Your task to perform on an android device: turn off priority inbox in the gmail app Image 0: 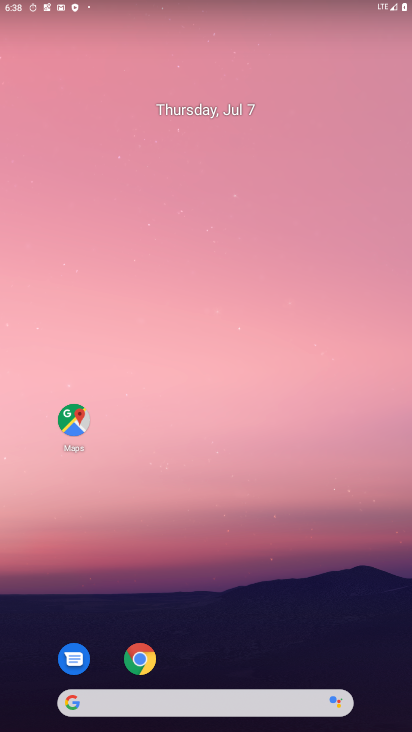
Step 0: drag from (367, 675) to (272, 5)
Your task to perform on an android device: turn off priority inbox in the gmail app Image 1: 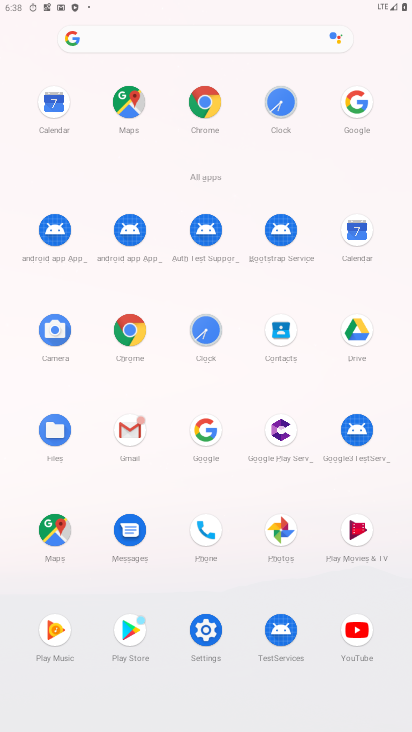
Step 1: click (120, 434)
Your task to perform on an android device: turn off priority inbox in the gmail app Image 2: 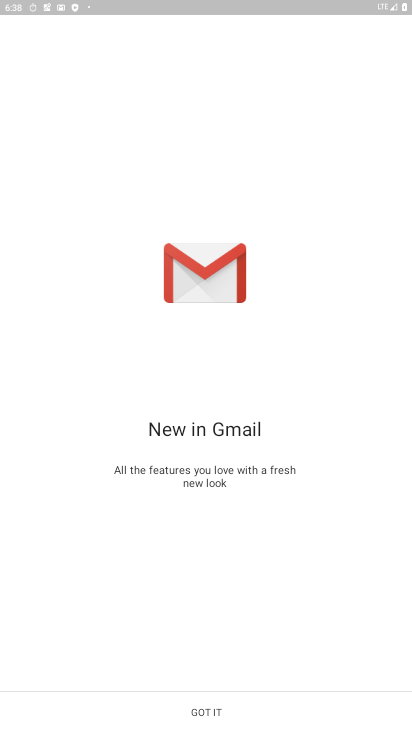
Step 2: click (231, 704)
Your task to perform on an android device: turn off priority inbox in the gmail app Image 3: 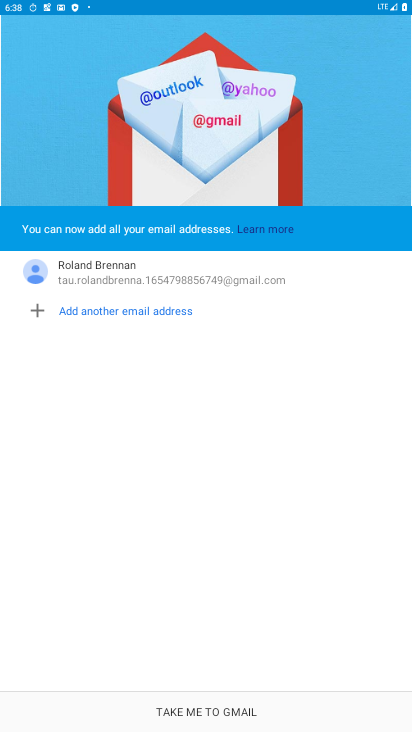
Step 3: click (202, 699)
Your task to perform on an android device: turn off priority inbox in the gmail app Image 4: 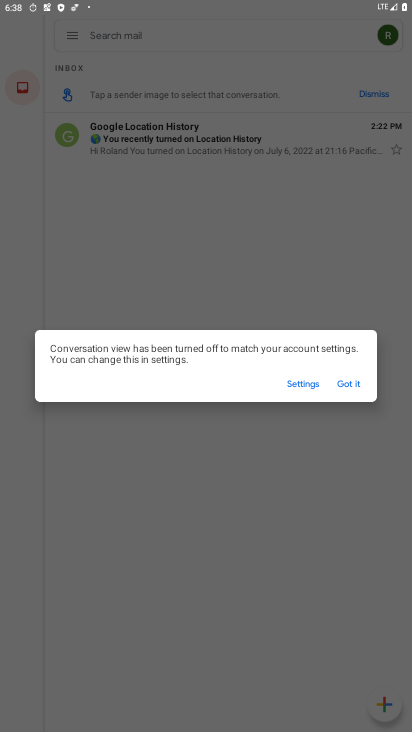
Step 4: click (336, 388)
Your task to perform on an android device: turn off priority inbox in the gmail app Image 5: 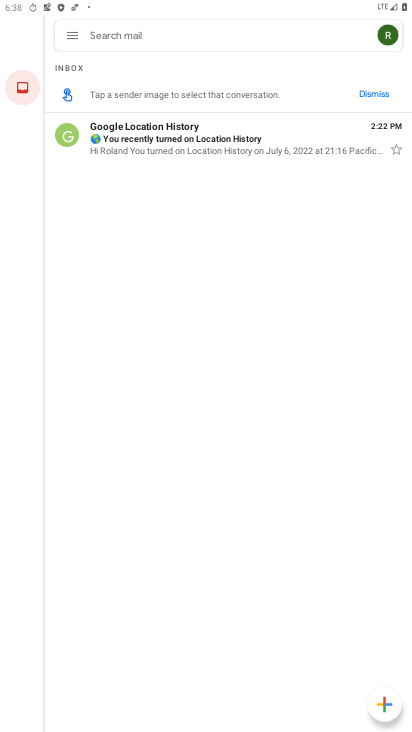
Step 5: click (84, 35)
Your task to perform on an android device: turn off priority inbox in the gmail app Image 6: 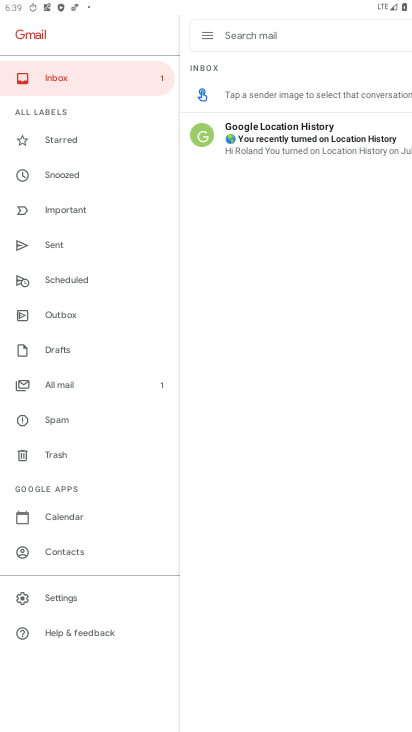
Step 6: click (73, 592)
Your task to perform on an android device: turn off priority inbox in the gmail app Image 7: 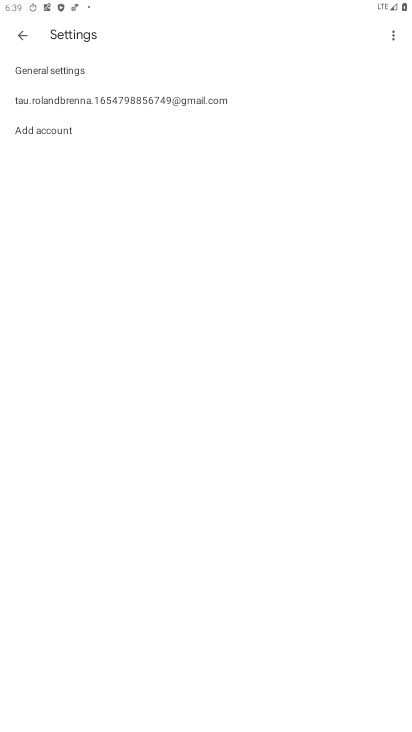
Step 7: click (132, 107)
Your task to perform on an android device: turn off priority inbox in the gmail app Image 8: 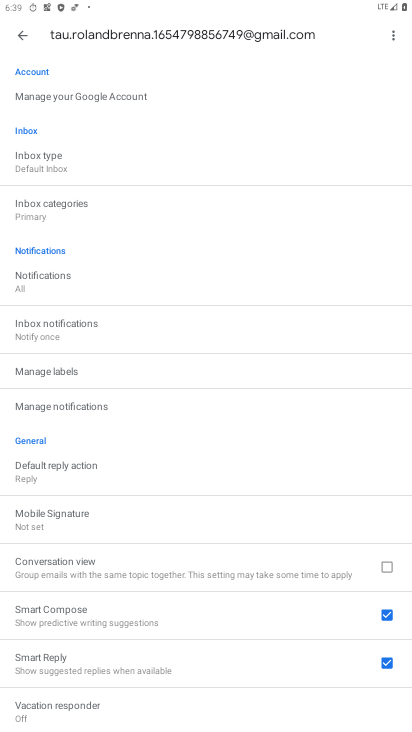
Step 8: click (70, 164)
Your task to perform on an android device: turn off priority inbox in the gmail app Image 9: 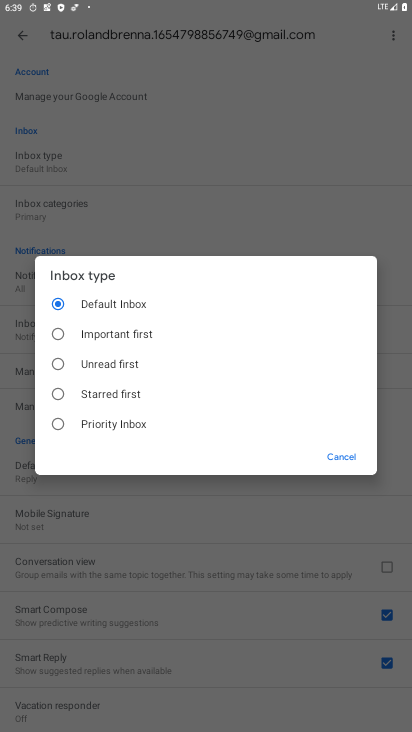
Step 9: task complete